Your task to perform on an android device: Open Google Chrome and click the shortcut for Amazon.com Image 0: 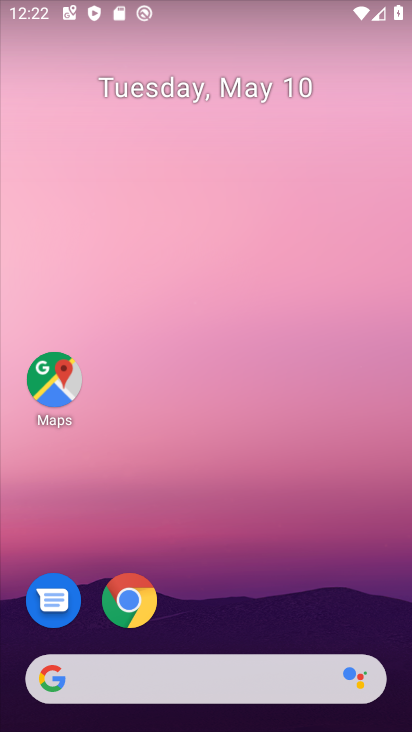
Step 0: click (147, 608)
Your task to perform on an android device: Open Google Chrome and click the shortcut for Amazon.com Image 1: 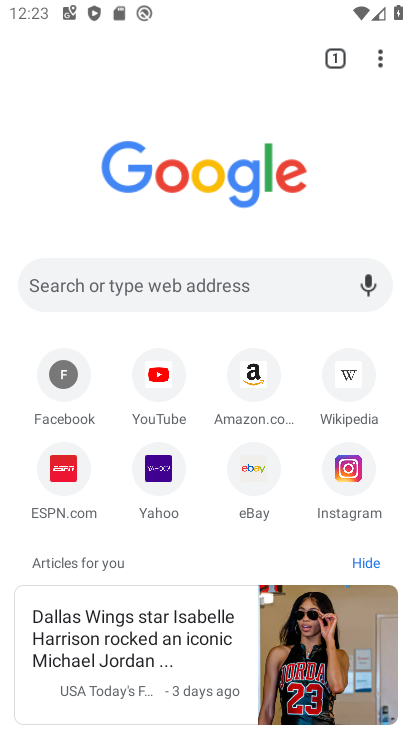
Step 1: click (263, 401)
Your task to perform on an android device: Open Google Chrome and click the shortcut for Amazon.com Image 2: 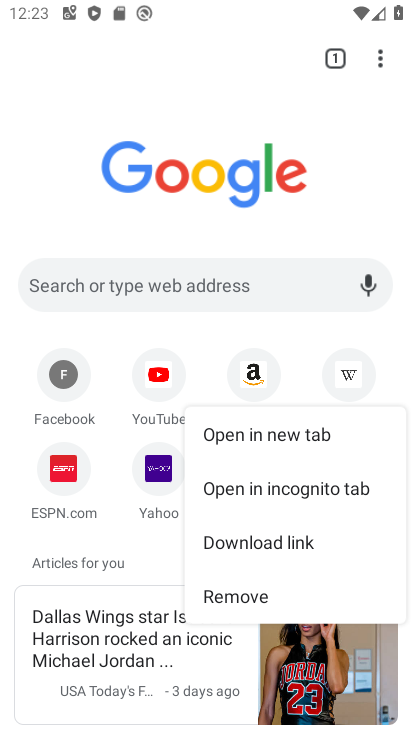
Step 2: click (248, 374)
Your task to perform on an android device: Open Google Chrome and click the shortcut for Amazon.com Image 3: 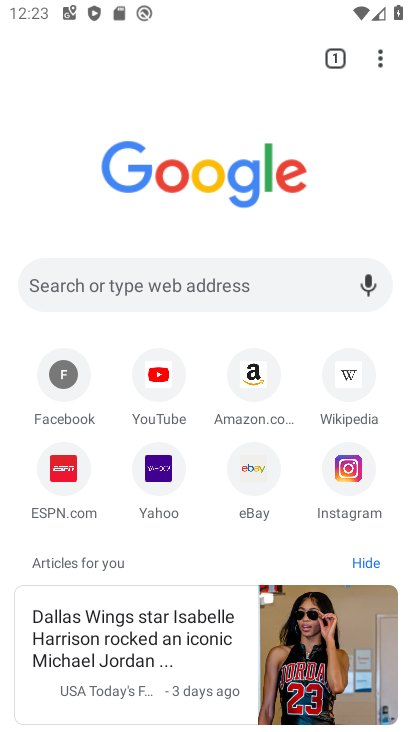
Step 3: click (248, 374)
Your task to perform on an android device: Open Google Chrome and click the shortcut for Amazon.com Image 4: 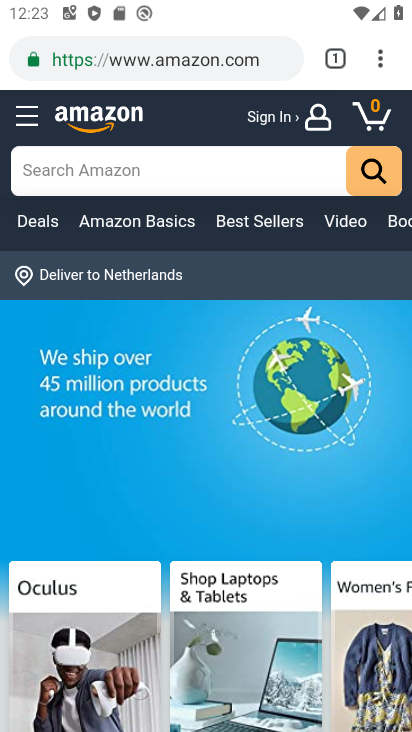
Step 4: task complete